Your task to perform on an android device: Open calendar and show me the second week of next month Image 0: 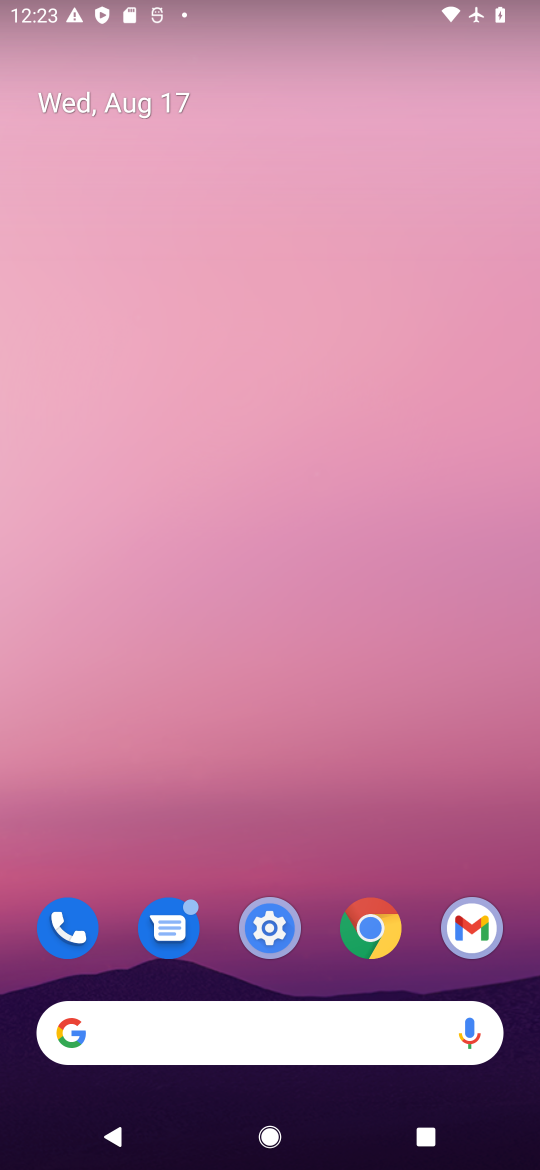
Step 0: drag from (284, 856) to (258, 296)
Your task to perform on an android device: Open calendar and show me the second week of next month Image 1: 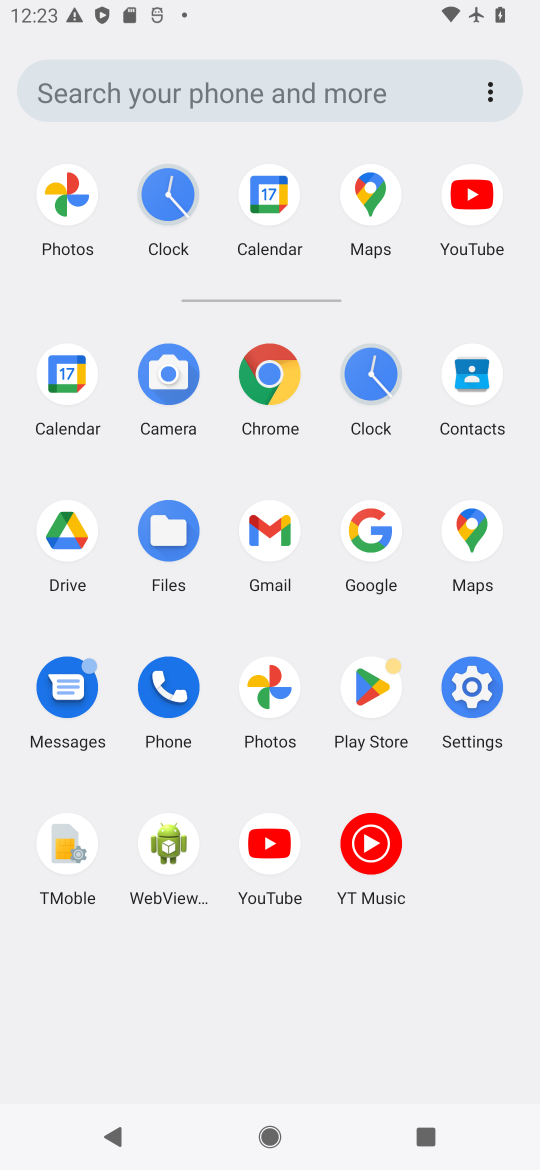
Step 1: click (271, 227)
Your task to perform on an android device: Open calendar and show me the second week of next month Image 2: 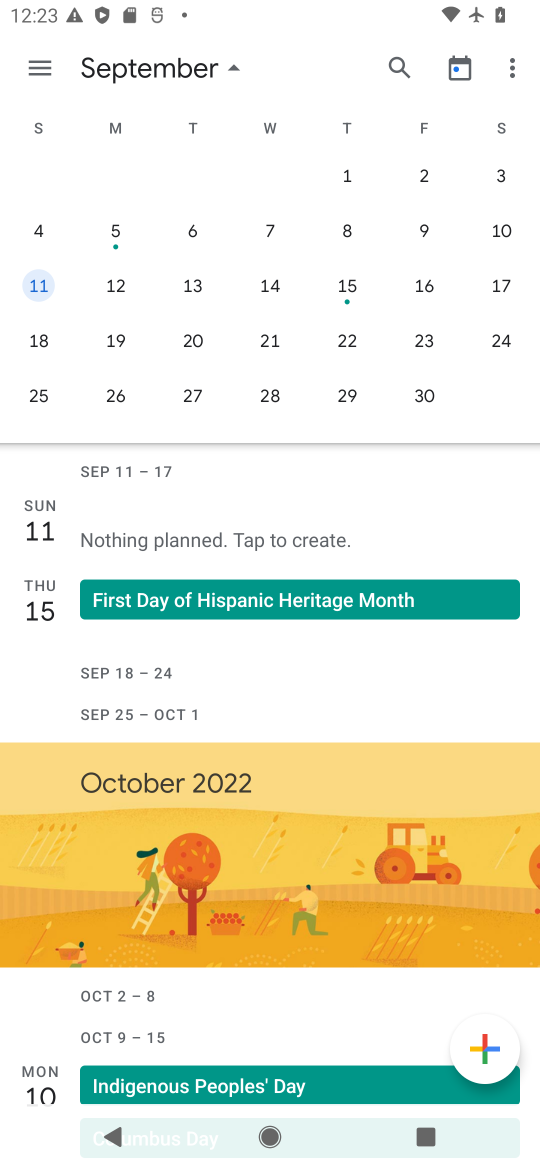
Step 2: click (43, 225)
Your task to perform on an android device: Open calendar and show me the second week of next month Image 3: 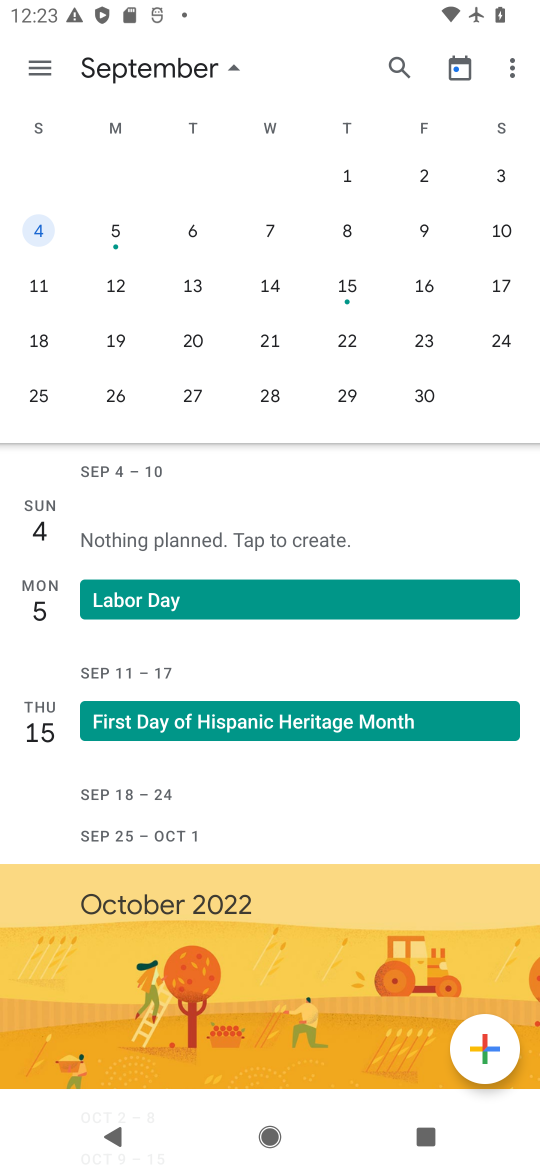
Step 3: task complete